Your task to perform on an android device: turn off location Image 0: 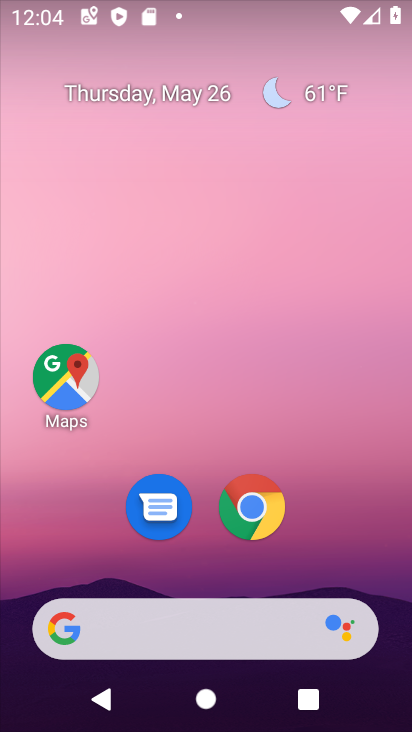
Step 0: drag from (334, 536) to (295, 29)
Your task to perform on an android device: turn off location Image 1: 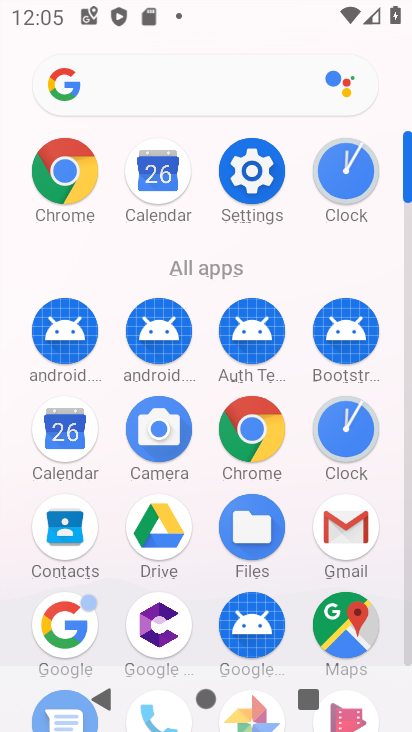
Step 1: click (257, 179)
Your task to perform on an android device: turn off location Image 2: 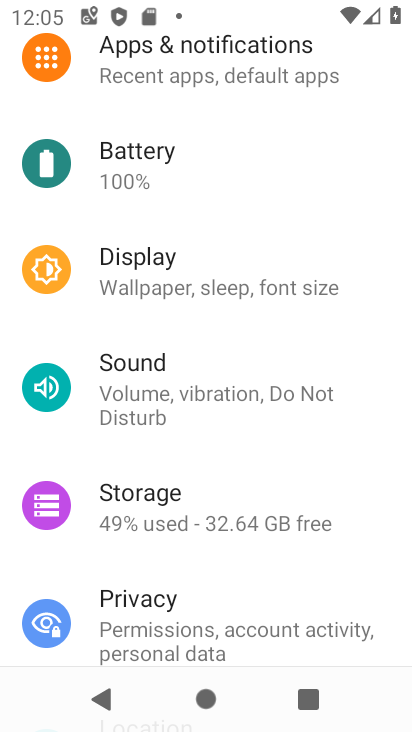
Step 2: drag from (235, 583) to (241, 266)
Your task to perform on an android device: turn off location Image 3: 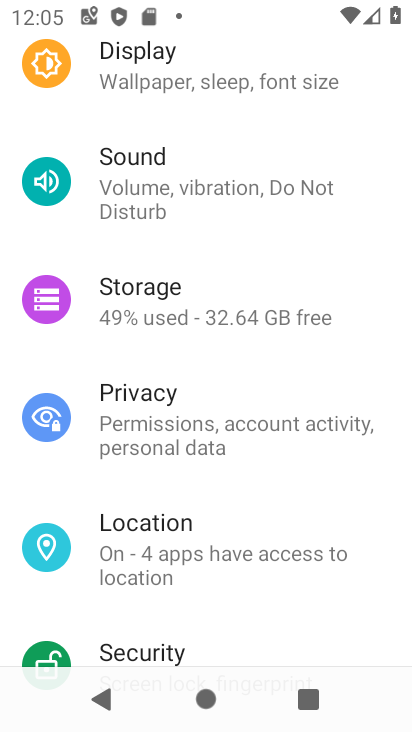
Step 3: click (253, 518)
Your task to perform on an android device: turn off location Image 4: 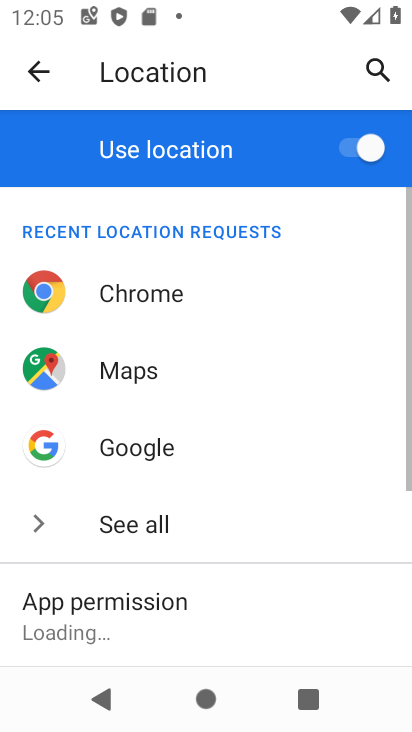
Step 4: task complete